Your task to perform on an android device: open app "Expedia: Hotels, Flights & Car" (install if not already installed) Image 0: 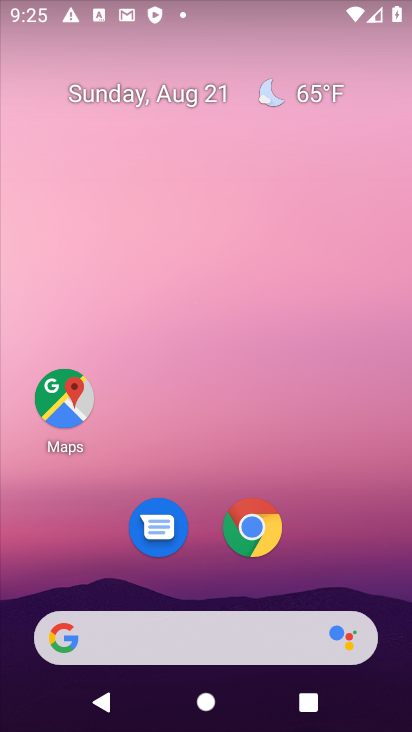
Step 0: drag from (198, 599) to (138, 23)
Your task to perform on an android device: open app "Expedia: Hotels, Flights & Car" (install if not already installed) Image 1: 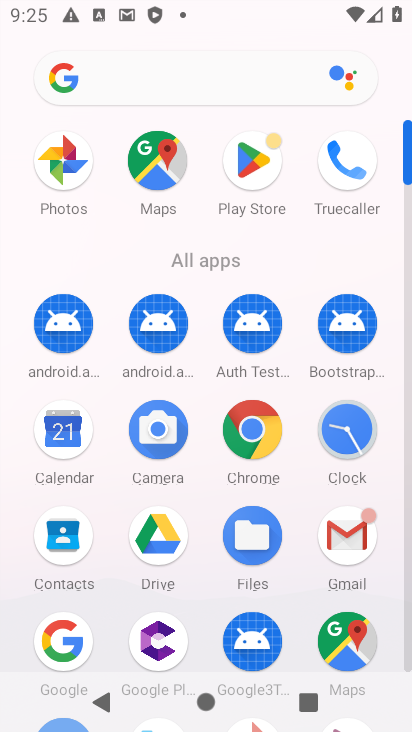
Step 1: click (242, 178)
Your task to perform on an android device: open app "Expedia: Hotels, Flights & Car" (install if not already installed) Image 2: 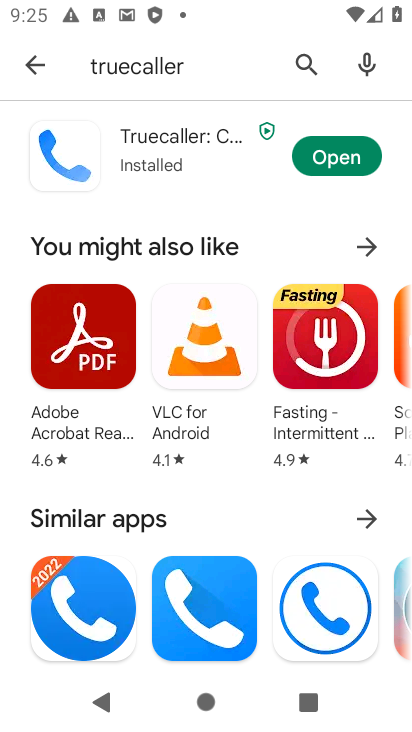
Step 2: click (148, 74)
Your task to perform on an android device: open app "Expedia: Hotels, Flights & Car" (install if not already installed) Image 3: 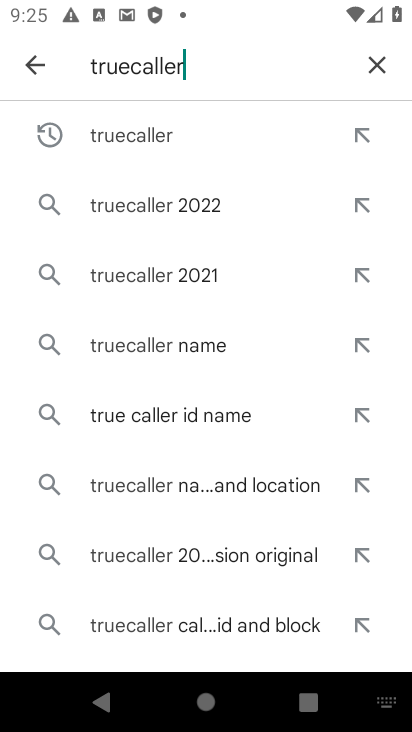
Step 3: click (368, 69)
Your task to perform on an android device: open app "Expedia: Hotels, Flights & Car" (install if not already installed) Image 4: 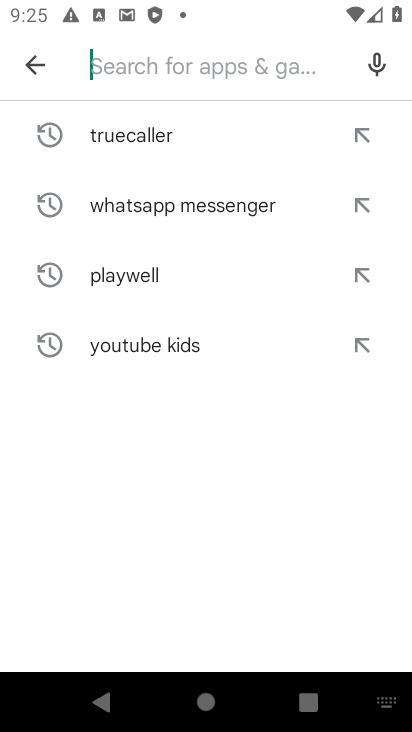
Step 4: type "Expedia"
Your task to perform on an android device: open app "Expedia: Hotels, Flights & Car" (install if not already installed) Image 5: 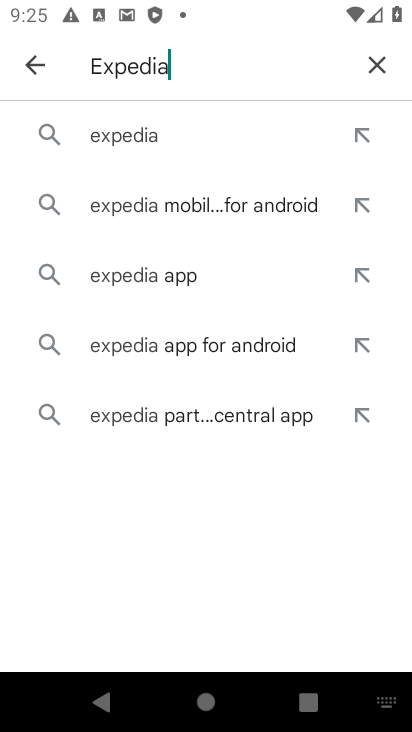
Step 5: click (156, 133)
Your task to perform on an android device: open app "Expedia: Hotels, Flights & Car" (install if not already installed) Image 6: 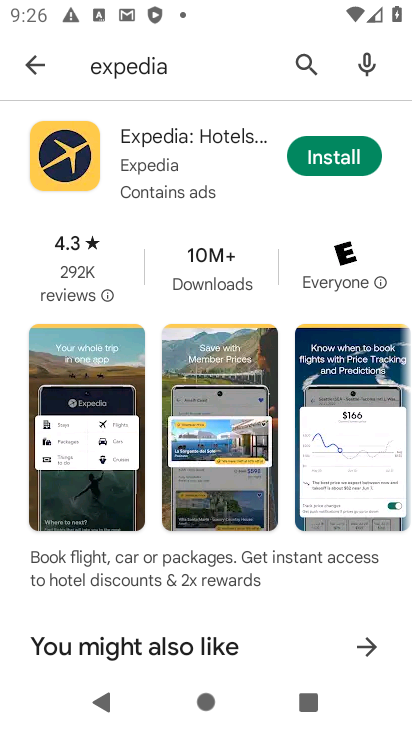
Step 6: click (349, 167)
Your task to perform on an android device: open app "Expedia: Hotels, Flights & Car" (install if not already installed) Image 7: 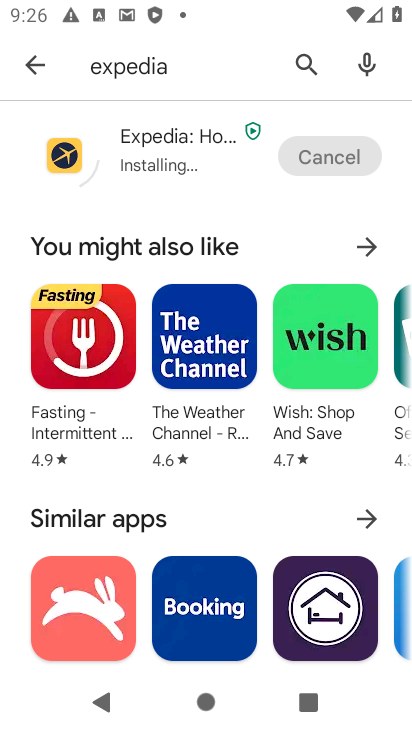
Step 7: click (214, 238)
Your task to perform on an android device: open app "Expedia: Hotels, Flights & Car" (install if not already installed) Image 8: 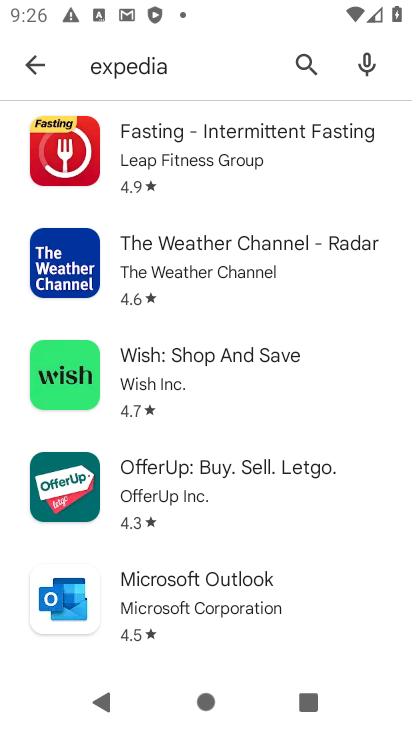
Step 8: task complete